Your task to perform on an android device: Open maps Image 0: 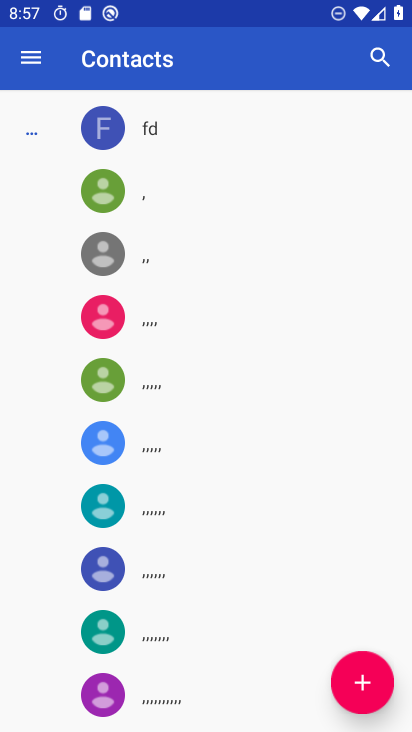
Step 0: press home button
Your task to perform on an android device: Open maps Image 1: 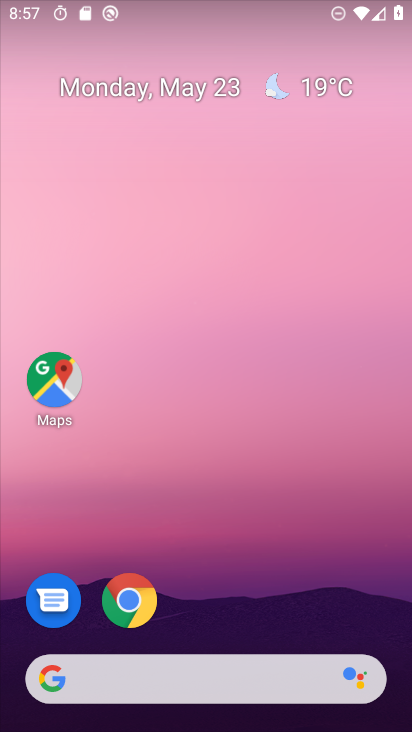
Step 1: click (61, 380)
Your task to perform on an android device: Open maps Image 2: 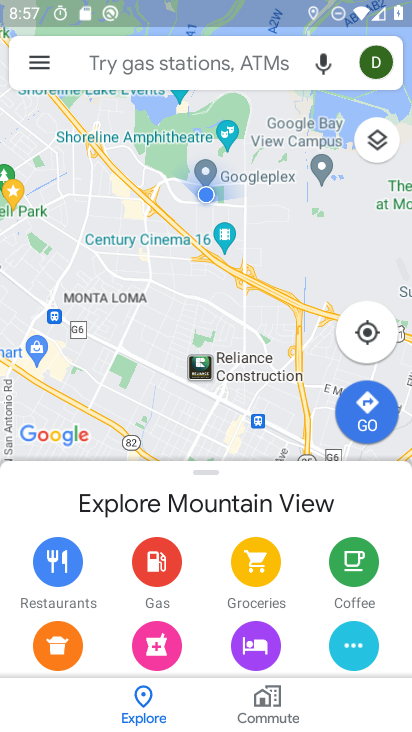
Step 2: press back button
Your task to perform on an android device: Open maps Image 3: 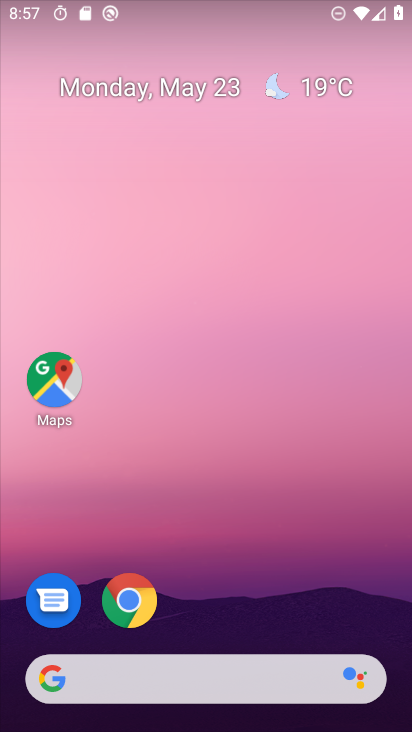
Step 3: click (51, 388)
Your task to perform on an android device: Open maps Image 4: 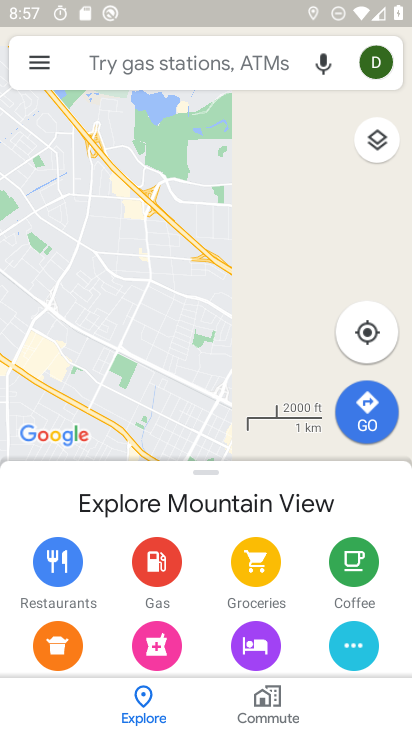
Step 4: task complete